Your task to perform on an android device: uninstall "Yahoo Mail" Image 0: 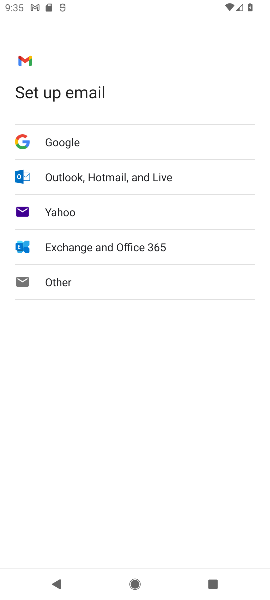
Step 0: press home button
Your task to perform on an android device: uninstall "Yahoo Mail" Image 1: 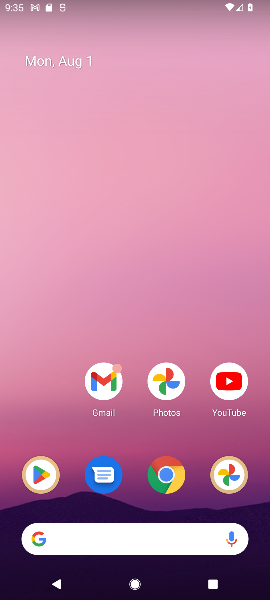
Step 1: drag from (157, 508) to (114, 53)
Your task to perform on an android device: uninstall "Yahoo Mail" Image 2: 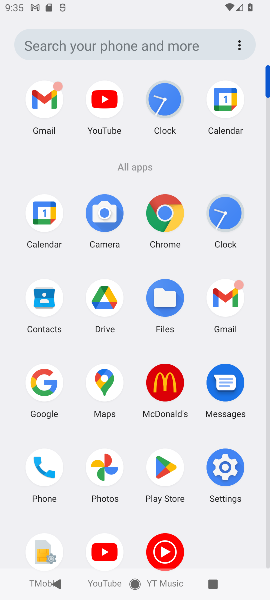
Step 2: click (176, 476)
Your task to perform on an android device: uninstall "Yahoo Mail" Image 3: 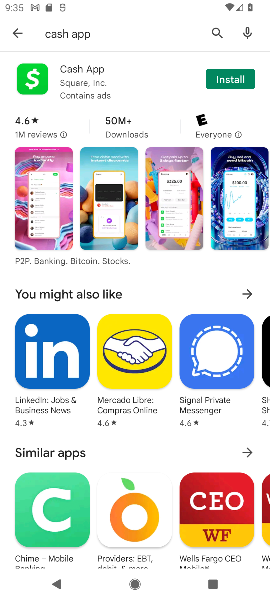
Step 3: click (8, 29)
Your task to perform on an android device: uninstall "Yahoo Mail" Image 4: 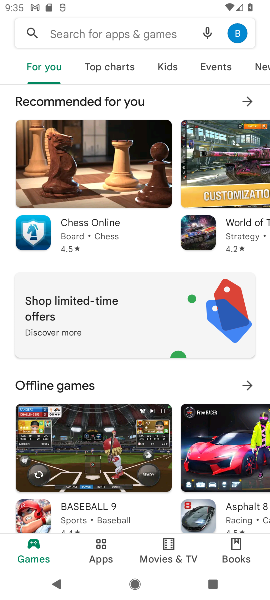
Step 4: click (73, 36)
Your task to perform on an android device: uninstall "Yahoo Mail" Image 5: 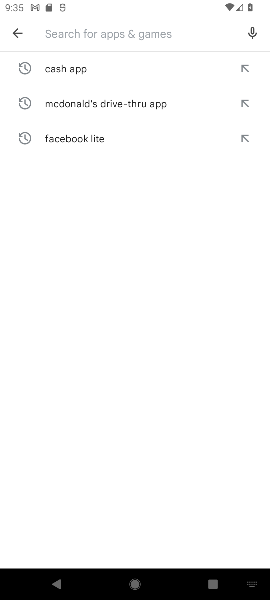
Step 5: type "Yahoo Mail"
Your task to perform on an android device: uninstall "Yahoo Mail" Image 6: 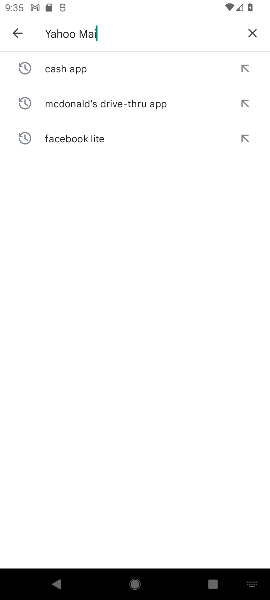
Step 6: type ""
Your task to perform on an android device: uninstall "Yahoo Mail" Image 7: 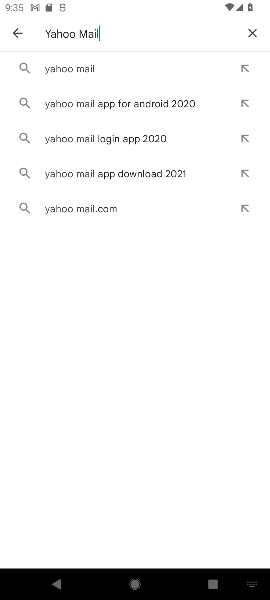
Step 7: click (98, 65)
Your task to perform on an android device: uninstall "Yahoo Mail" Image 8: 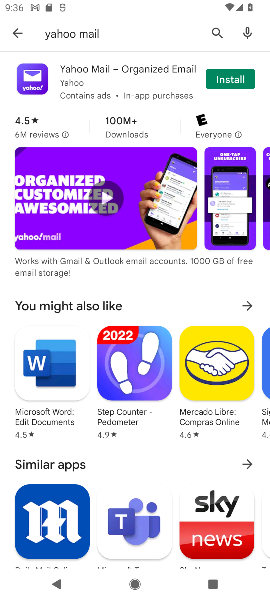
Step 8: click (145, 78)
Your task to perform on an android device: uninstall "Yahoo Mail" Image 9: 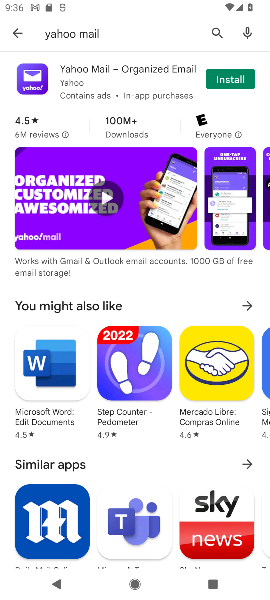
Step 9: task complete